Your task to perform on an android device: turn off location Image 0: 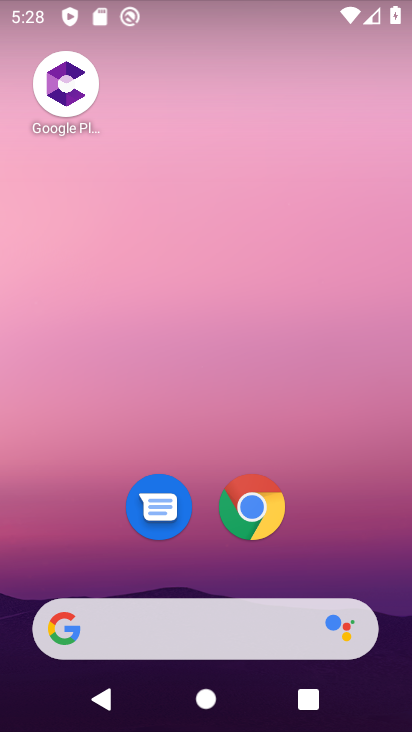
Step 0: drag from (207, 510) to (339, 265)
Your task to perform on an android device: turn off location Image 1: 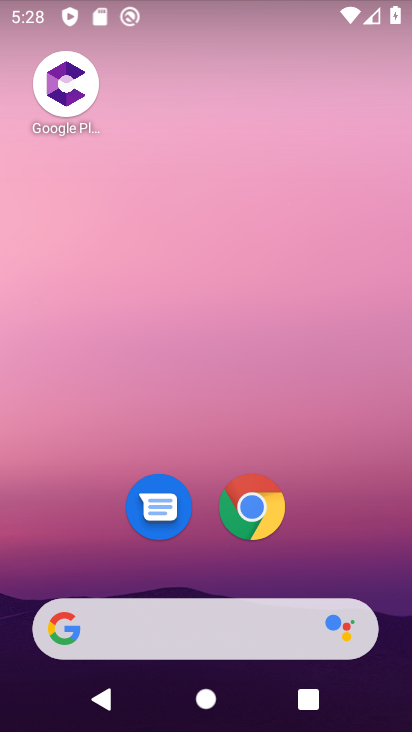
Step 1: drag from (219, 581) to (203, 32)
Your task to perform on an android device: turn off location Image 2: 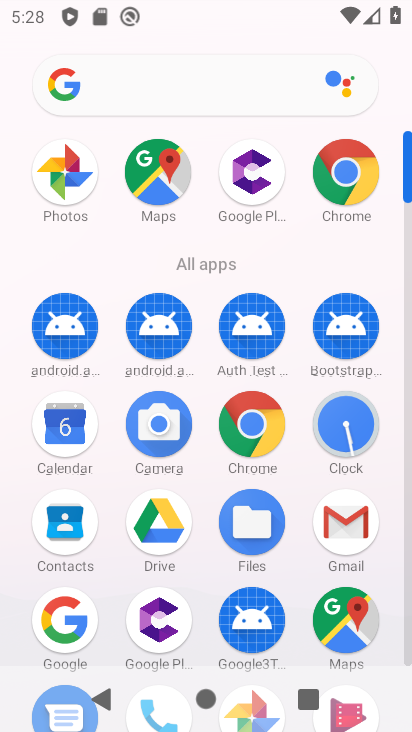
Step 2: drag from (211, 649) to (216, 267)
Your task to perform on an android device: turn off location Image 3: 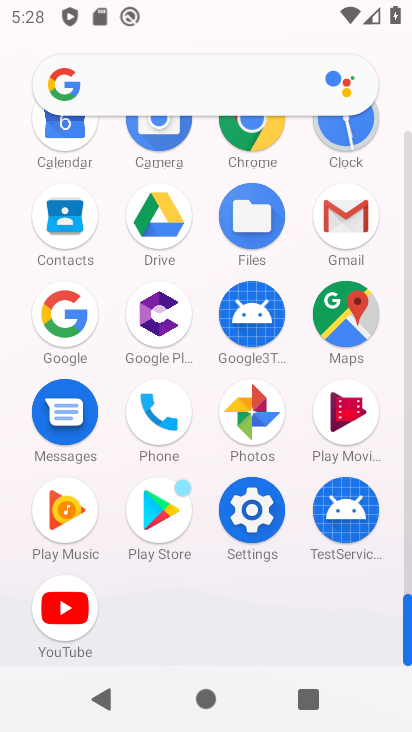
Step 3: click (256, 514)
Your task to perform on an android device: turn off location Image 4: 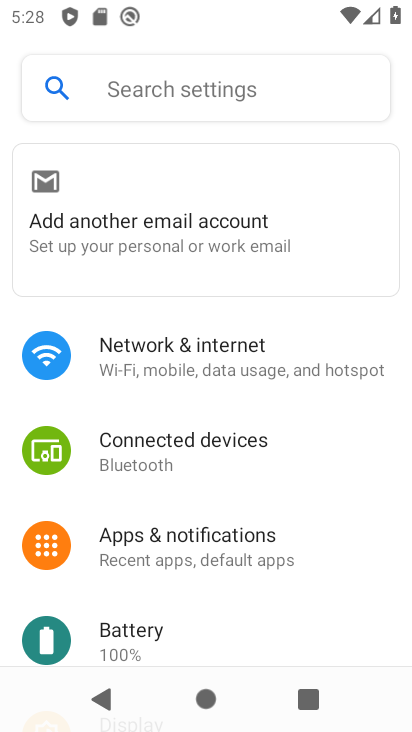
Step 4: drag from (152, 632) to (105, 152)
Your task to perform on an android device: turn off location Image 5: 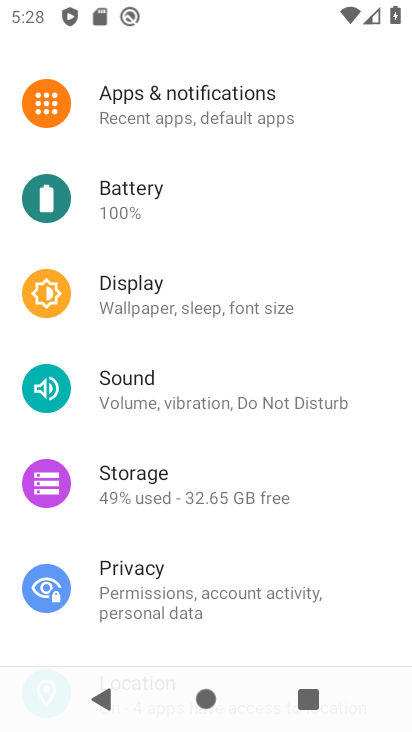
Step 5: drag from (204, 528) to (220, 295)
Your task to perform on an android device: turn off location Image 6: 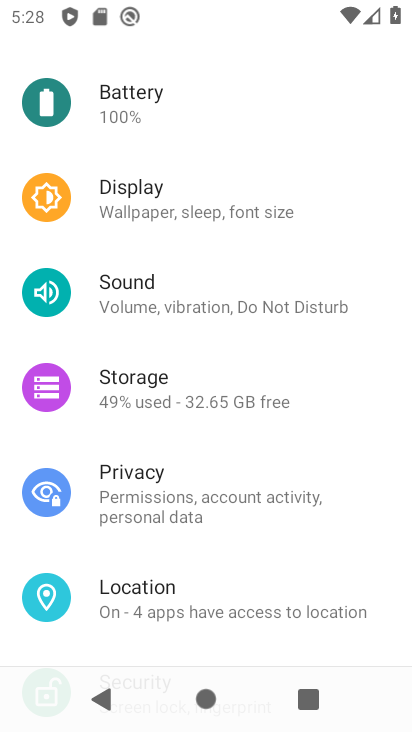
Step 6: click (132, 592)
Your task to perform on an android device: turn off location Image 7: 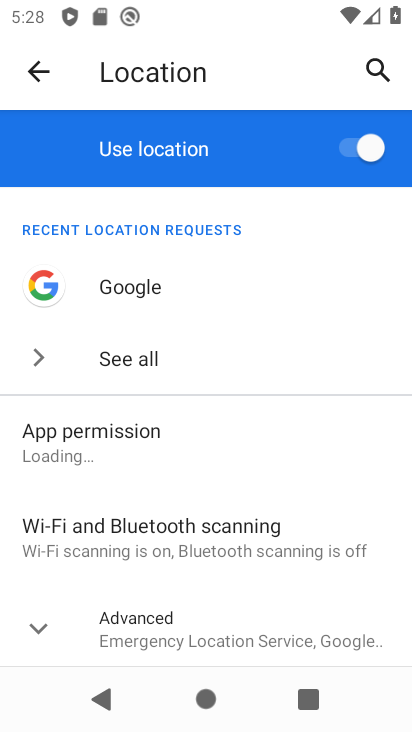
Step 7: click (340, 140)
Your task to perform on an android device: turn off location Image 8: 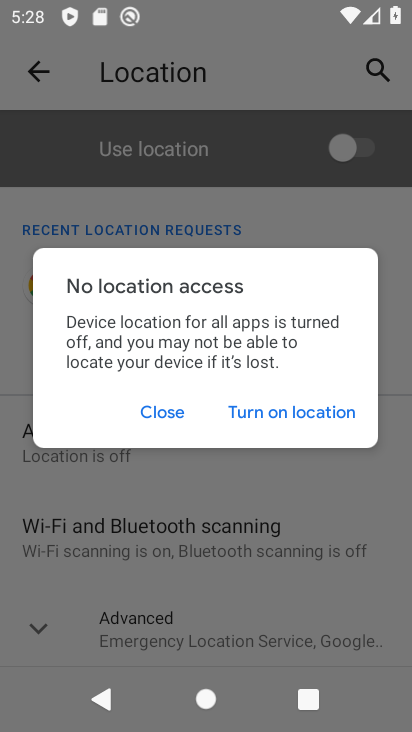
Step 8: task complete